Your task to perform on an android device: Open Yahoo.com Image 0: 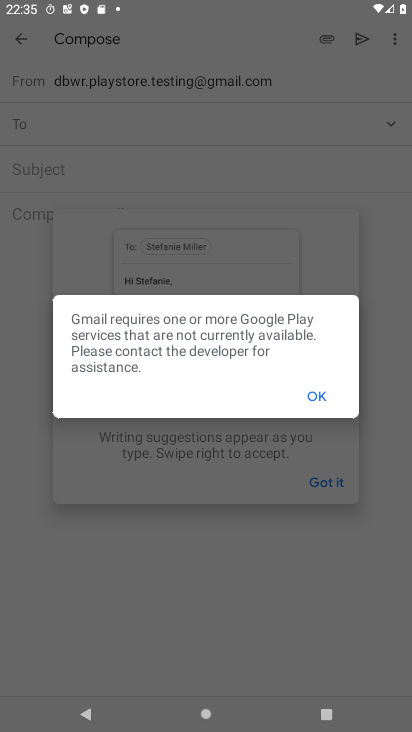
Step 0: press home button
Your task to perform on an android device: Open Yahoo.com Image 1: 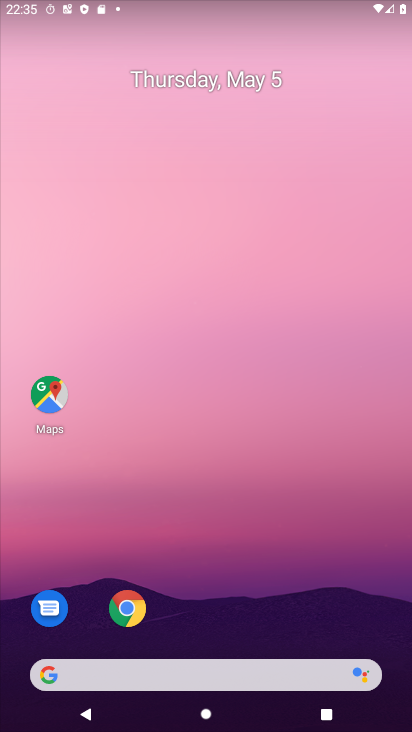
Step 1: drag from (322, 570) to (315, 21)
Your task to perform on an android device: Open Yahoo.com Image 2: 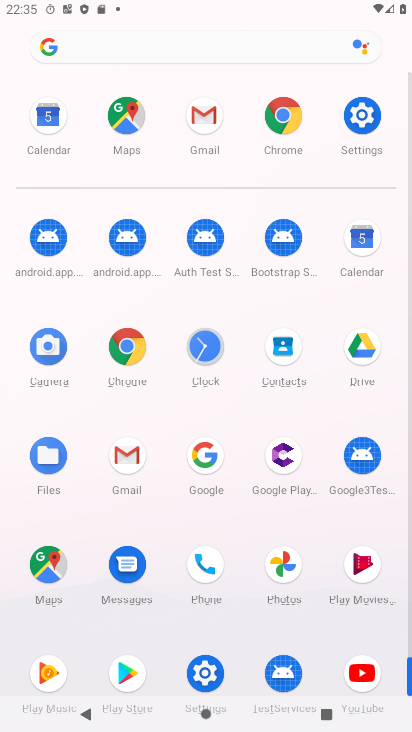
Step 2: click (128, 341)
Your task to perform on an android device: Open Yahoo.com Image 3: 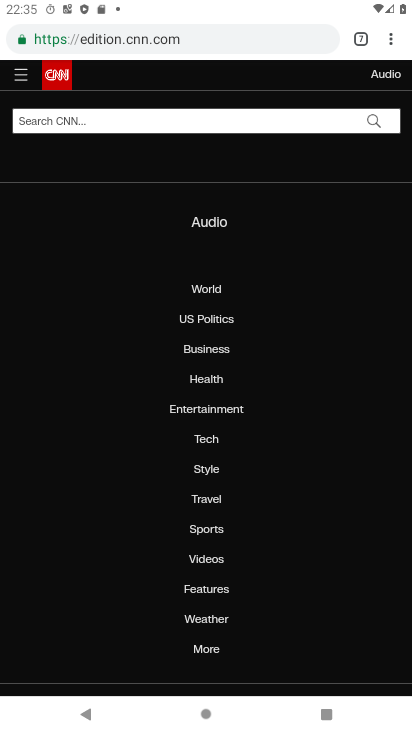
Step 3: click (274, 44)
Your task to perform on an android device: Open Yahoo.com Image 4: 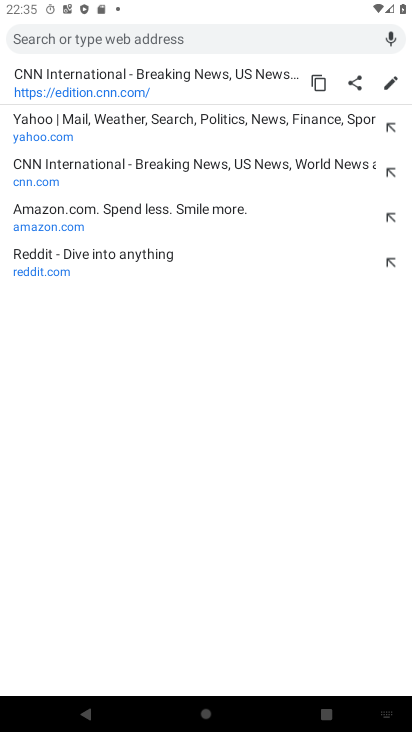
Step 4: click (303, 126)
Your task to perform on an android device: Open Yahoo.com Image 5: 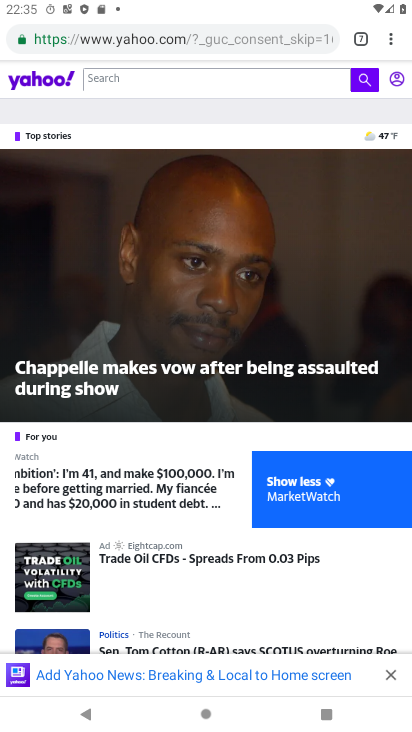
Step 5: task complete